Your task to perform on an android device: Open eBay Image 0: 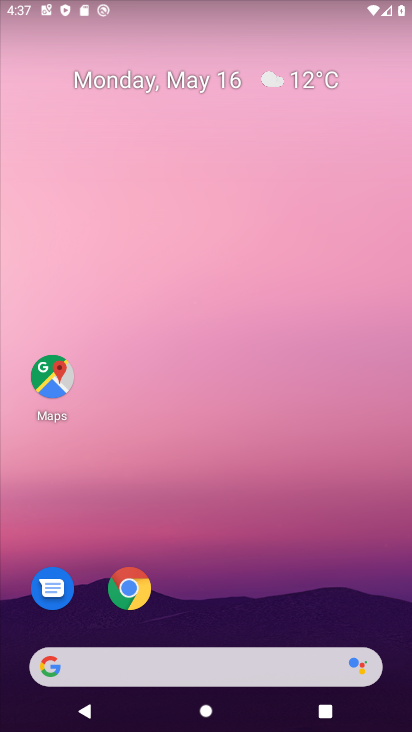
Step 0: click (133, 578)
Your task to perform on an android device: Open eBay Image 1: 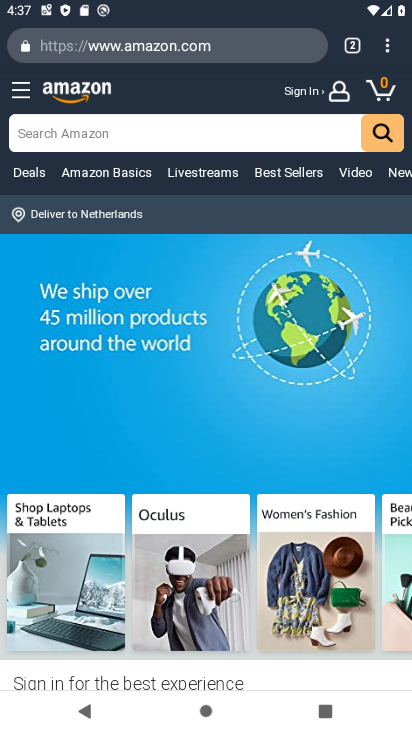
Step 1: click (353, 46)
Your task to perform on an android device: Open eBay Image 2: 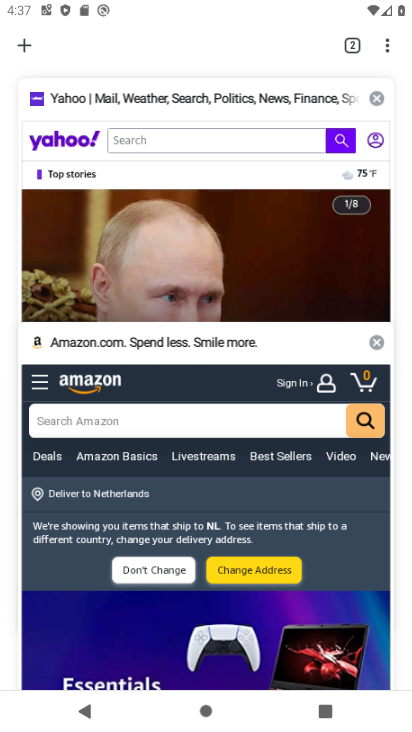
Step 2: click (27, 43)
Your task to perform on an android device: Open eBay Image 3: 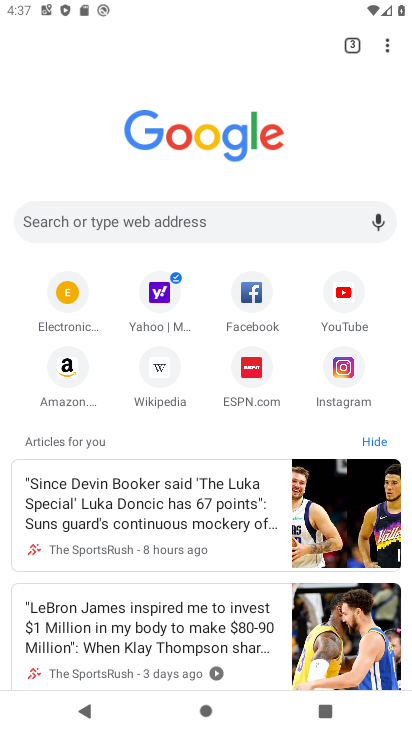
Step 3: click (95, 212)
Your task to perform on an android device: Open eBay Image 4: 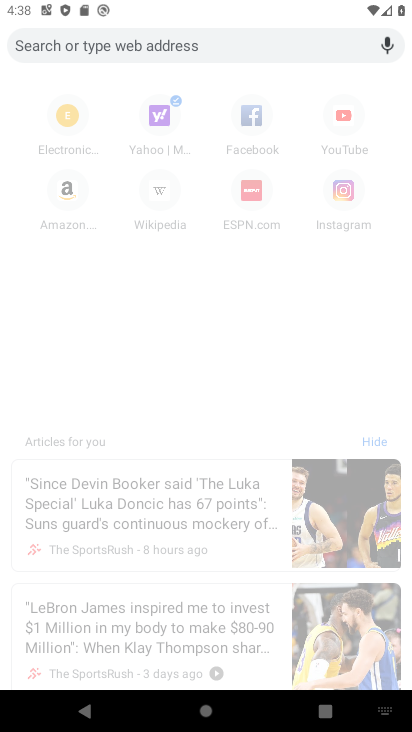
Step 4: type "ebay"
Your task to perform on an android device: Open eBay Image 5: 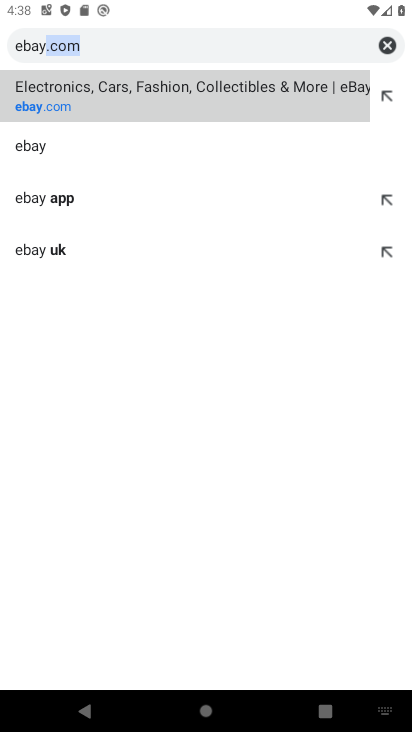
Step 5: click (92, 105)
Your task to perform on an android device: Open eBay Image 6: 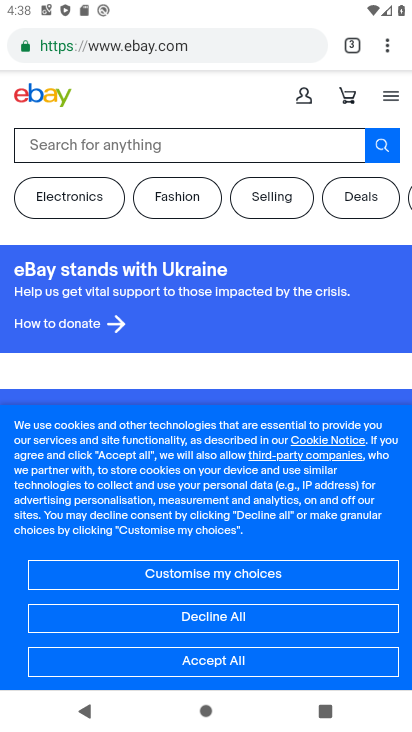
Step 6: task complete